Your task to perform on an android device: turn off picture-in-picture Image 0: 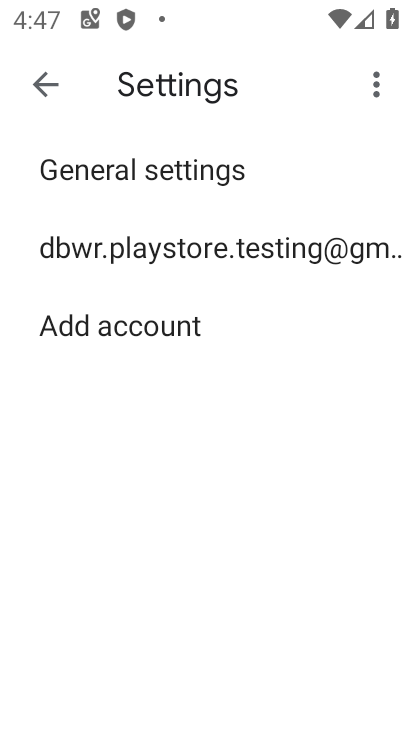
Step 0: press home button
Your task to perform on an android device: turn off picture-in-picture Image 1: 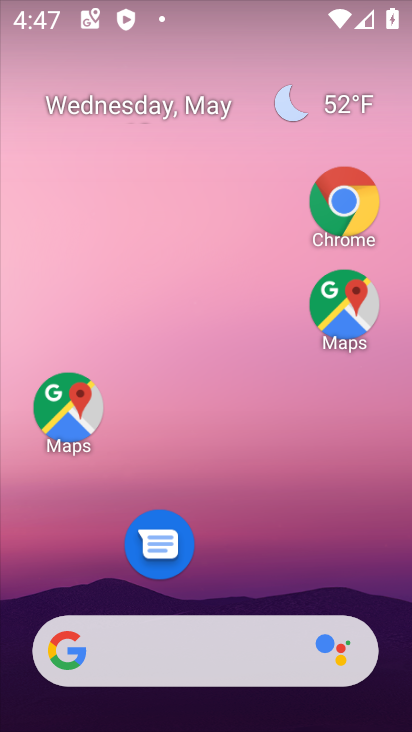
Step 1: drag from (247, 418) to (238, 66)
Your task to perform on an android device: turn off picture-in-picture Image 2: 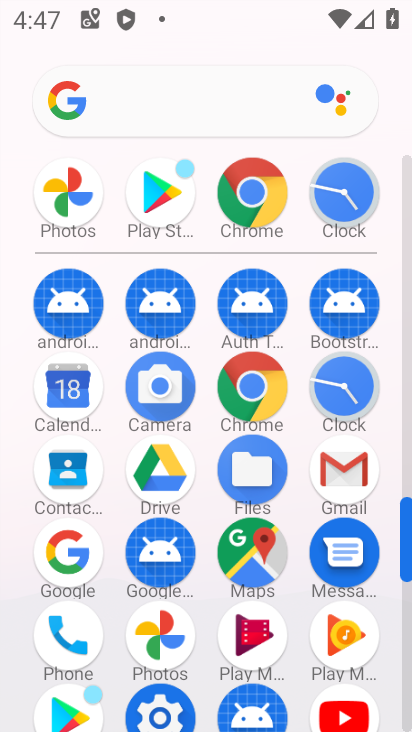
Step 2: click (151, 711)
Your task to perform on an android device: turn off picture-in-picture Image 3: 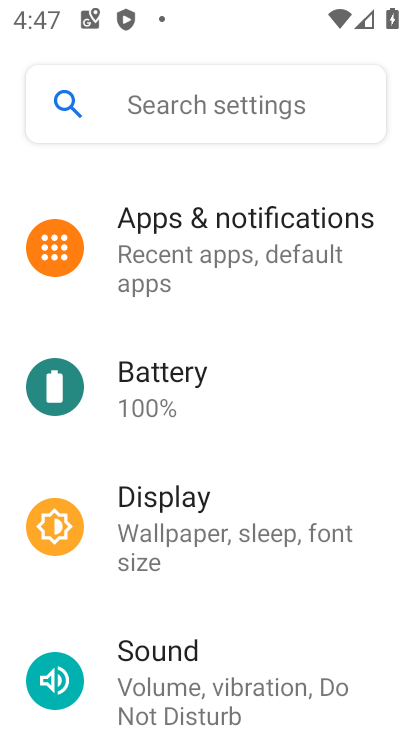
Step 3: click (168, 277)
Your task to perform on an android device: turn off picture-in-picture Image 4: 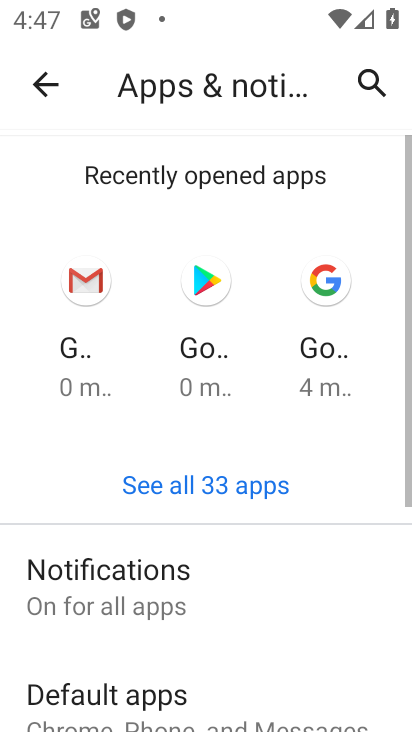
Step 4: drag from (161, 607) to (161, 192)
Your task to perform on an android device: turn off picture-in-picture Image 5: 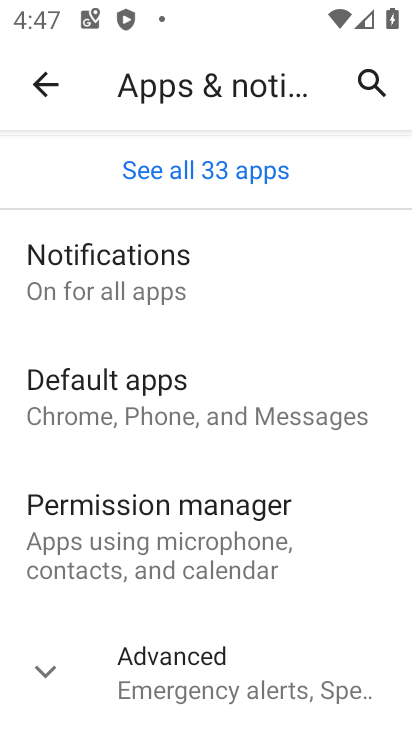
Step 5: click (149, 676)
Your task to perform on an android device: turn off picture-in-picture Image 6: 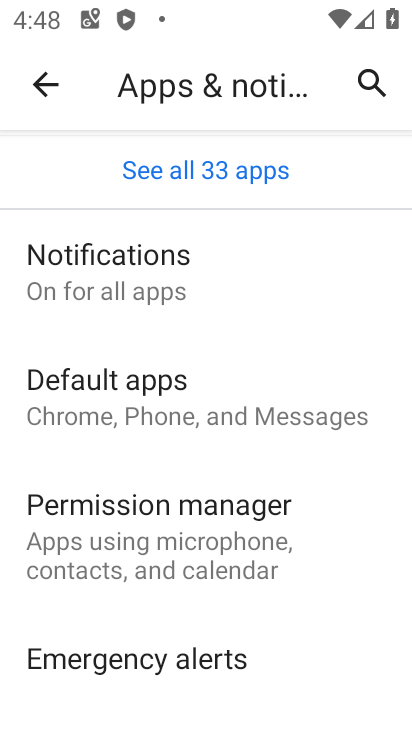
Step 6: drag from (146, 669) to (196, 408)
Your task to perform on an android device: turn off picture-in-picture Image 7: 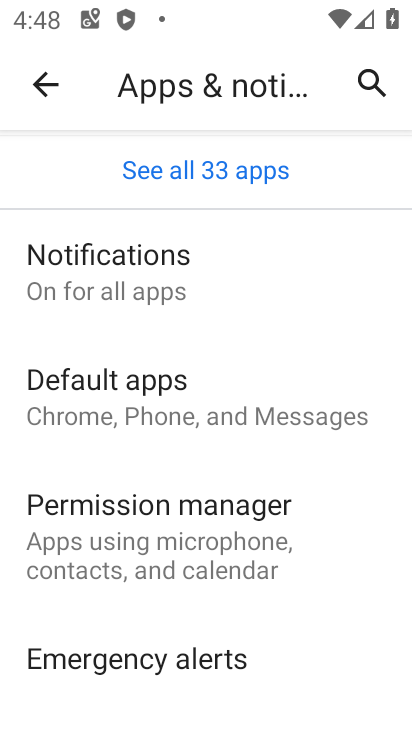
Step 7: click (195, 423)
Your task to perform on an android device: turn off picture-in-picture Image 8: 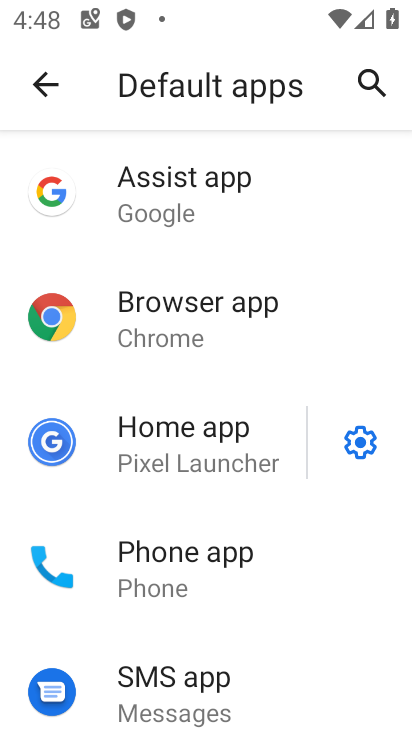
Step 8: click (45, 90)
Your task to perform on an android device: turn off picture-in-picture Image 9: 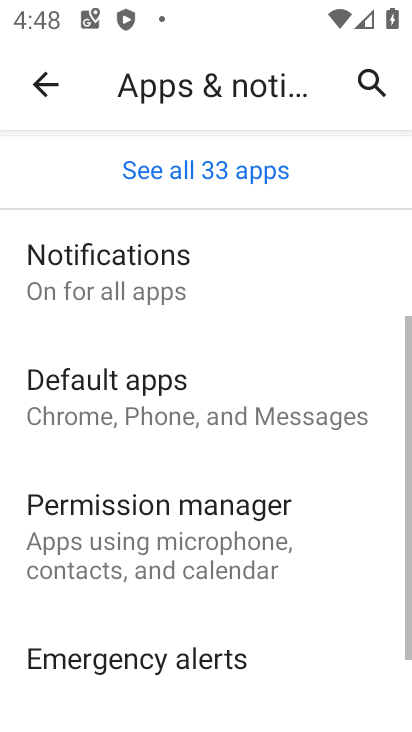
Step 9: drag from (234, 602) to (254, 256)
Your task to perform on an android device: turn off picture-in-picture Image 10: 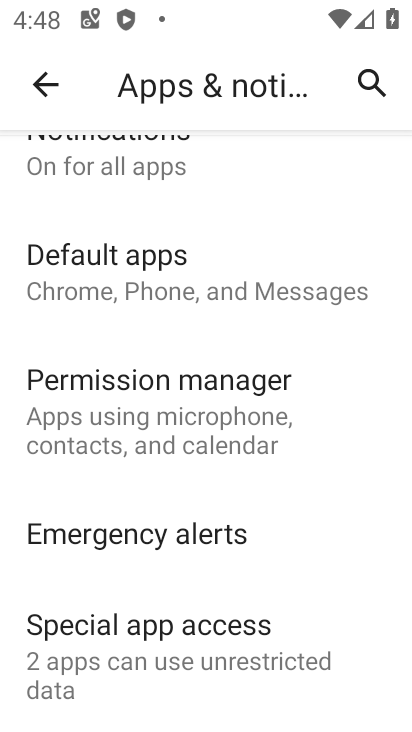
Step 10: click (166, 655)
Your task to perform on an android device: turn off picture-in-picture Image 11: 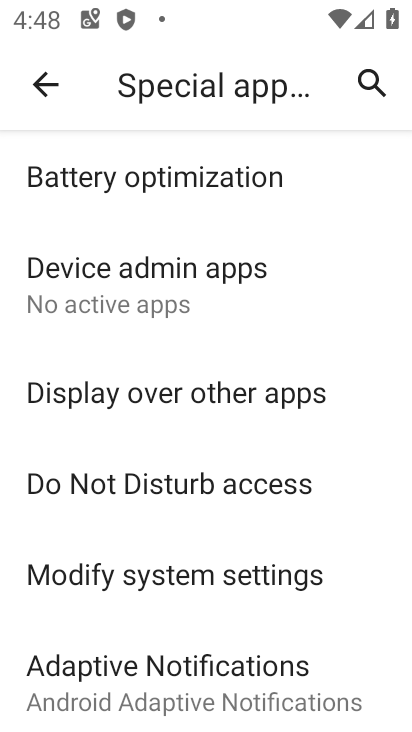
Step 11: drag from (176, 667) to (223, 376)
Your task to perform on an android device: turn off picture-in-picture Image 12: 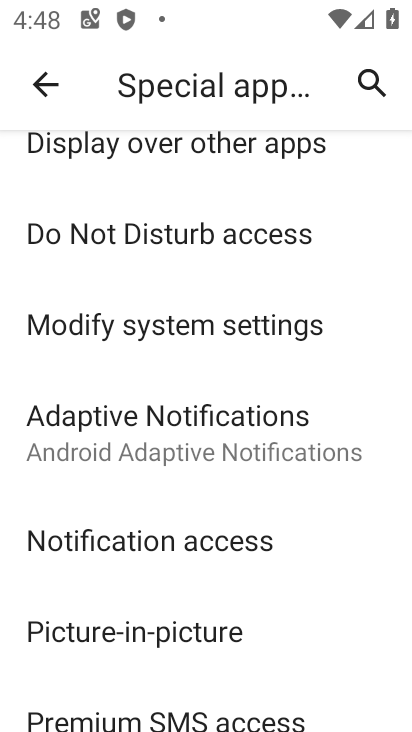
Step 12: click (166, 647)
Your task to perform on an android device: turn off picture-in-picture Image 13: 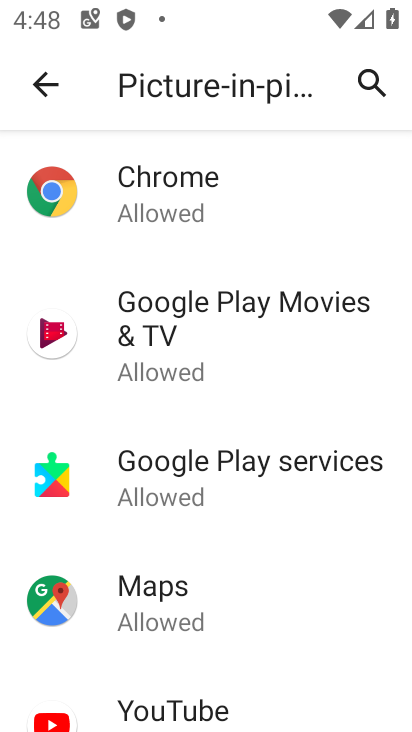
Step 13: click (180, 206)
Your task to perform on an android device: turn off picture-in-picture Image 14: 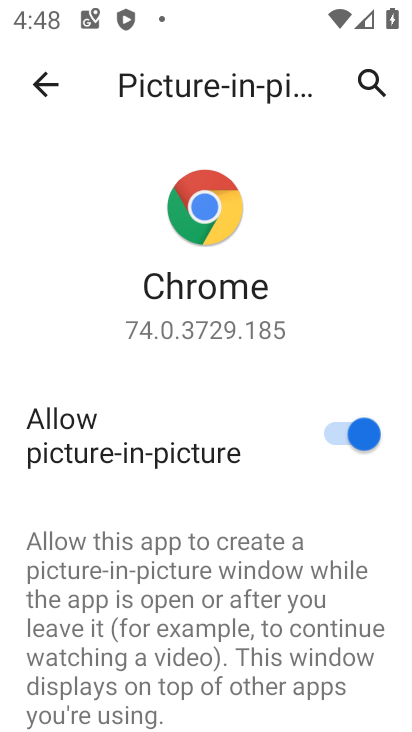
Step 14: click (333, 436)
Your task to perform on an android device: turn off picture-in-picture Image 15: 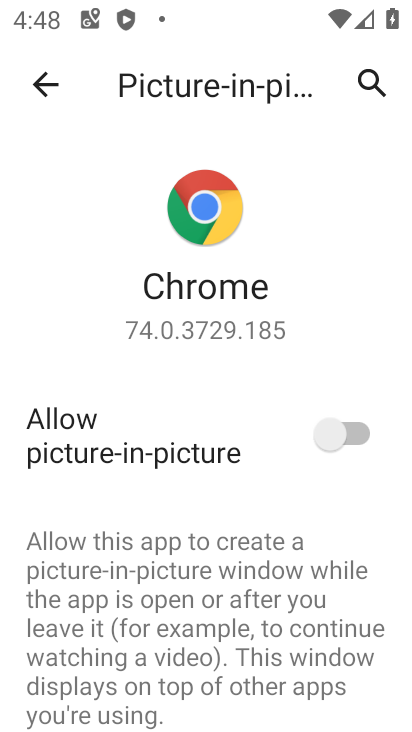
Step 15: task complete